Your task to perform on an android device: Search for vegetarian restaurants on Maps Image 0: 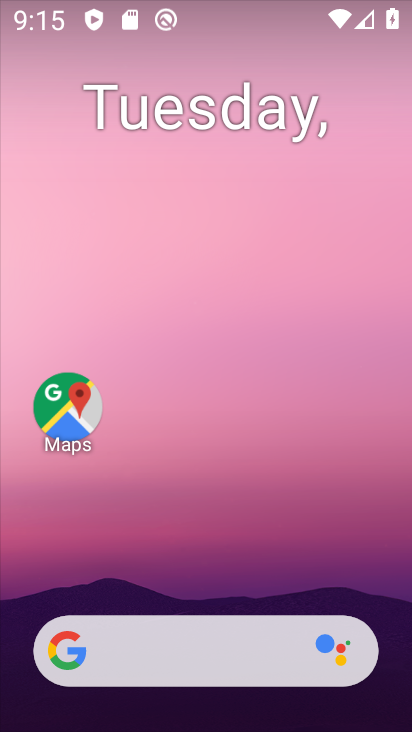
Step 0: click (86, 422)
Your task to perform on an android device: Search for vegetarian restaurants on Maps Image 1: 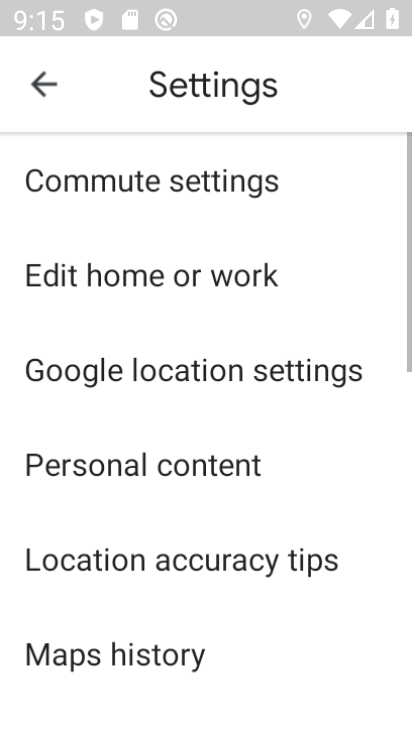
Step 1: click (34, 85)
Your task to perform on an android device: Search for vegetarian restaurants on Maps Image 2: 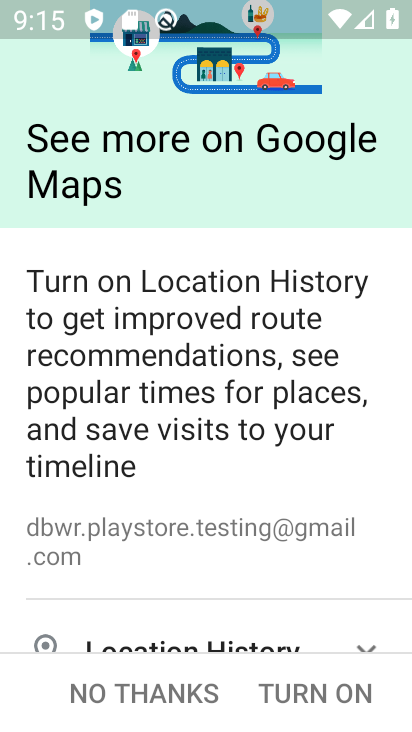
Step 2: click (283, 677)
Your task to perform on an android device: Search for vegetarian restaurants on Maps Image 3: 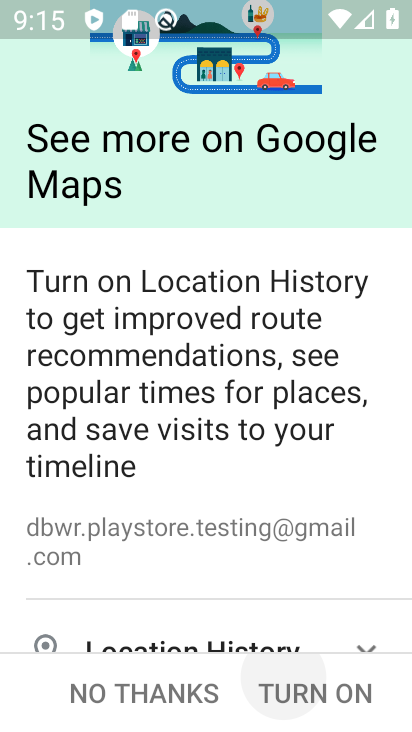
Step 3: click (283, 677)
Your task to perform on an android device: Search for vegetarian restaurants on Maps Image 4: 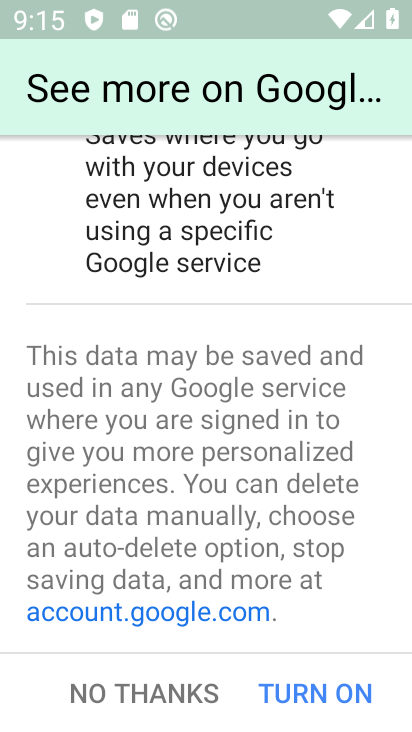
Step 4: click (283, 677)
Your task to perform on an android device: Search for vegetarian restaurants on Maps Image 5: 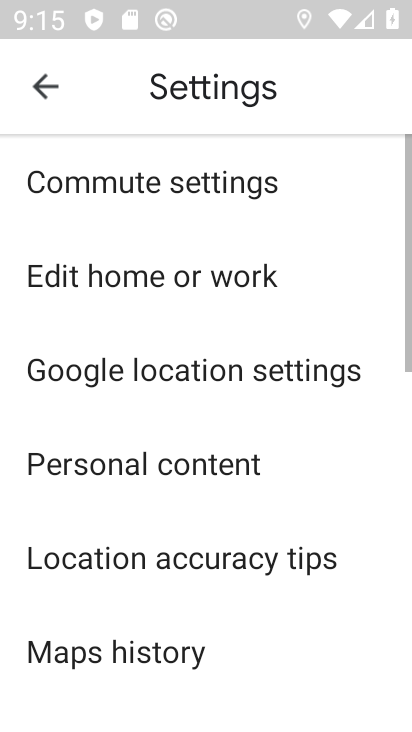
Step 5: click (41, 85)
Your task to perform on an android device: Search for vegetarian restaurants on Maps Image 6: 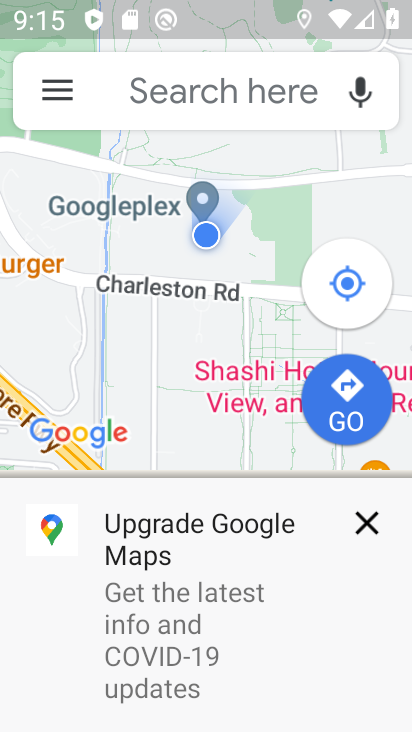
Step 6: click (156, 116)
Your task to perform on an android device: Search for vegetarian restaurants on Maps Image 7: 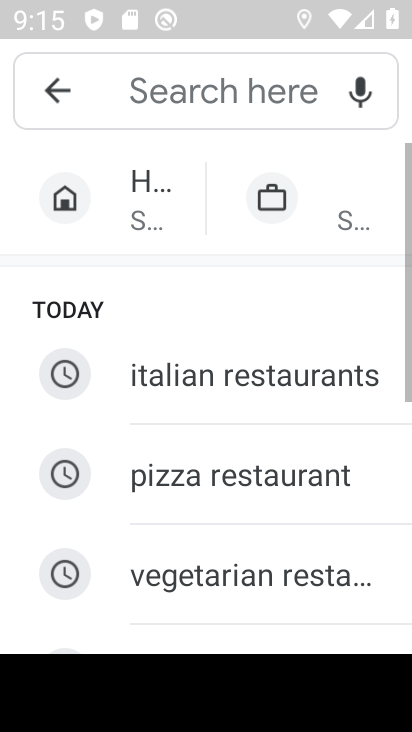
Step 7: click (213, 569)
Your task to perform on an android device: Search for vegetarian restaurants on Maps Image 8: 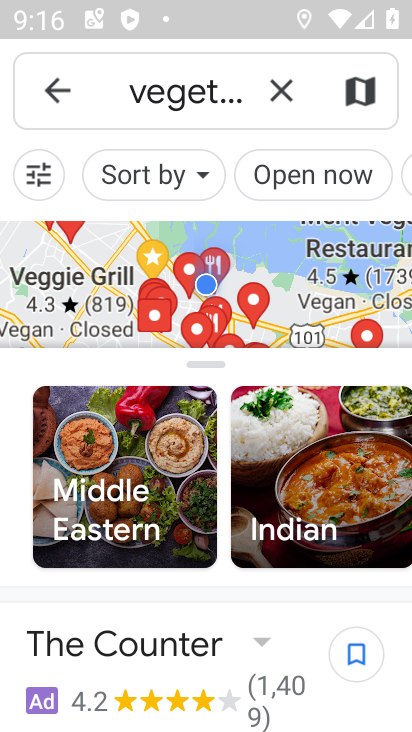
Step 8: task complete